Your task to perform on an android device: Open maps Image 0: 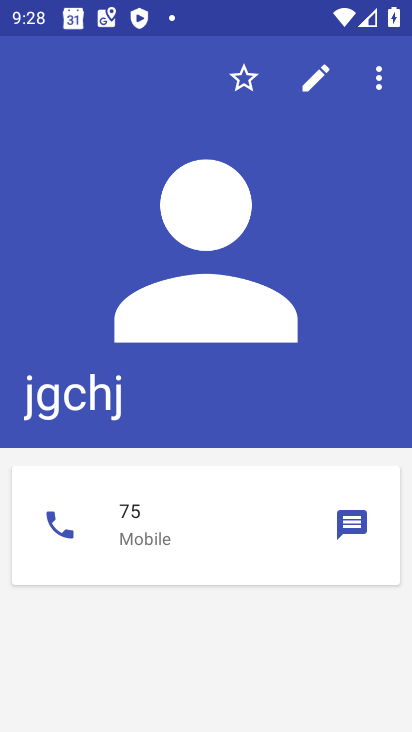
Step 0: press home button
Your task to perform on an android device: Open maps Image 1: 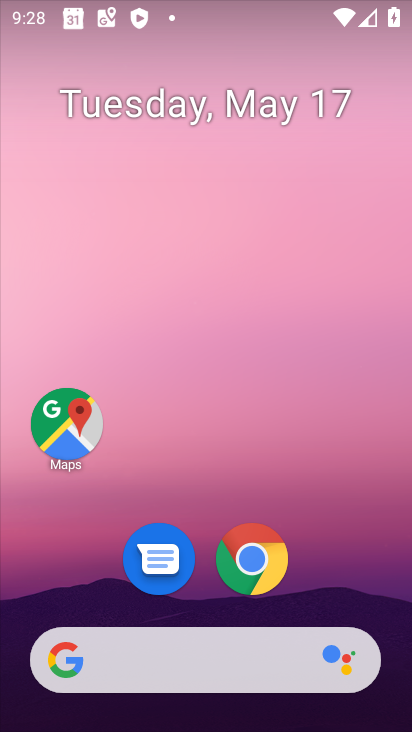
Step 1: click (79, 428)
Your task to perform on an android device: Open maps Image 2: 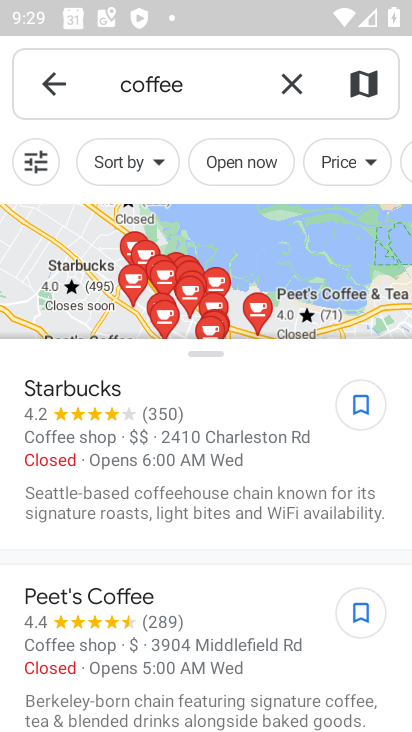
Step 2: task complete